Your task to perform on an android device: Search for shimano brake pads on Walmart Image 0: 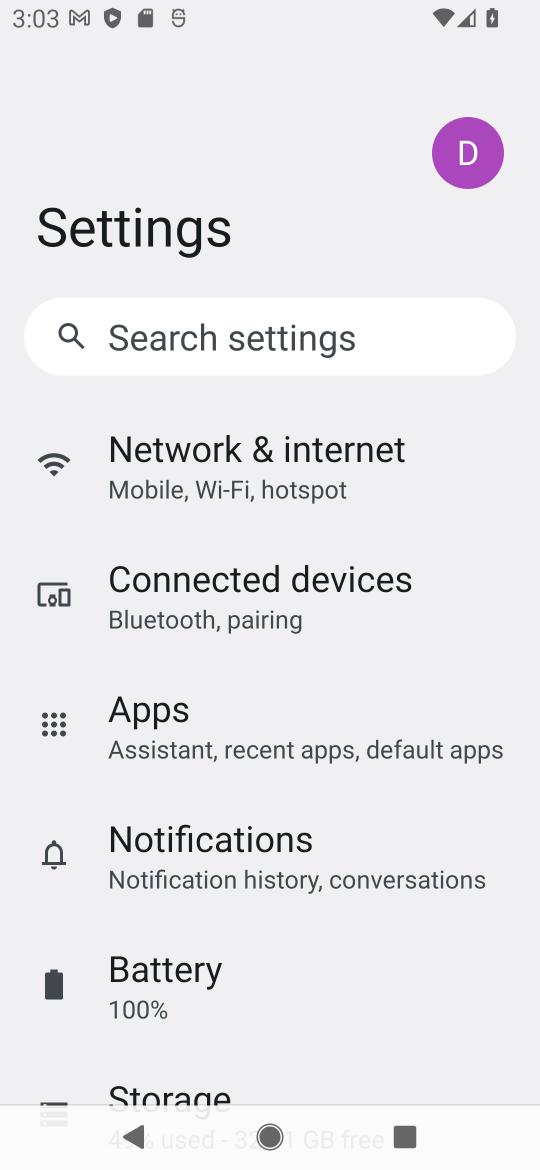
Step 0: press home button
Your task to perform on an android device: Search for shimano brake pads on Walmart Image 1: 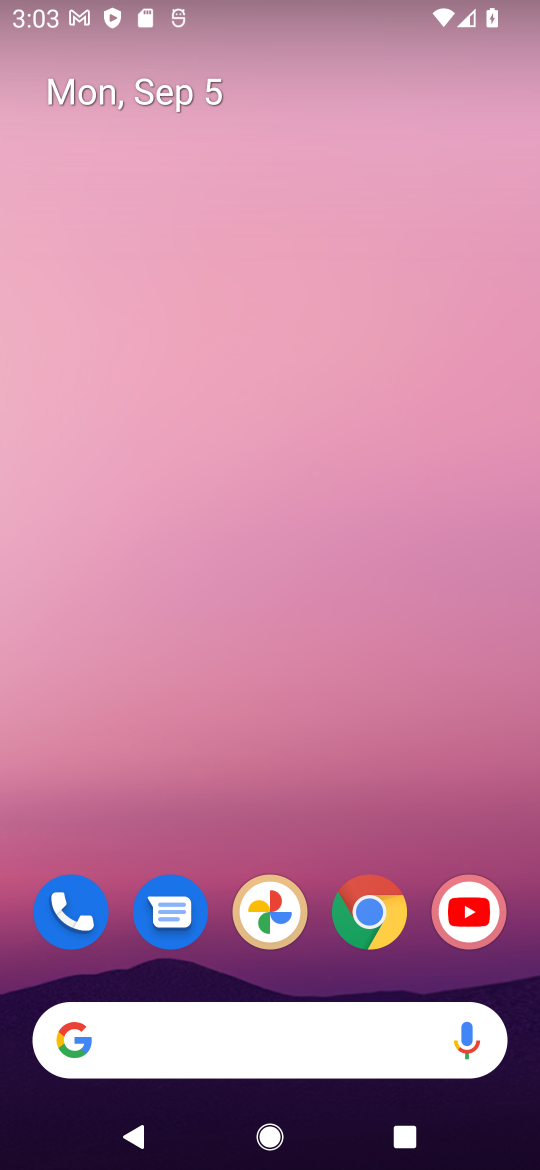
Step 1: click (362, 913)
Your task to perform on an android device: Search for shimano brake pads on Walmart Image 2: 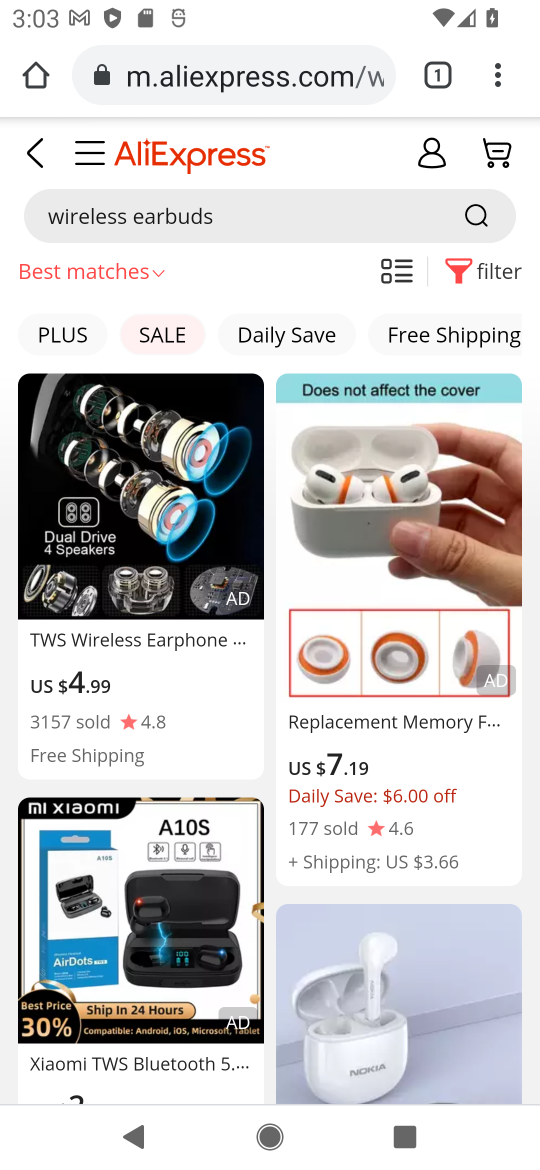
Step 2: click (217, 78)
Your task to perform on an android device: Search for shimano brake pads on Walmart Image 3: 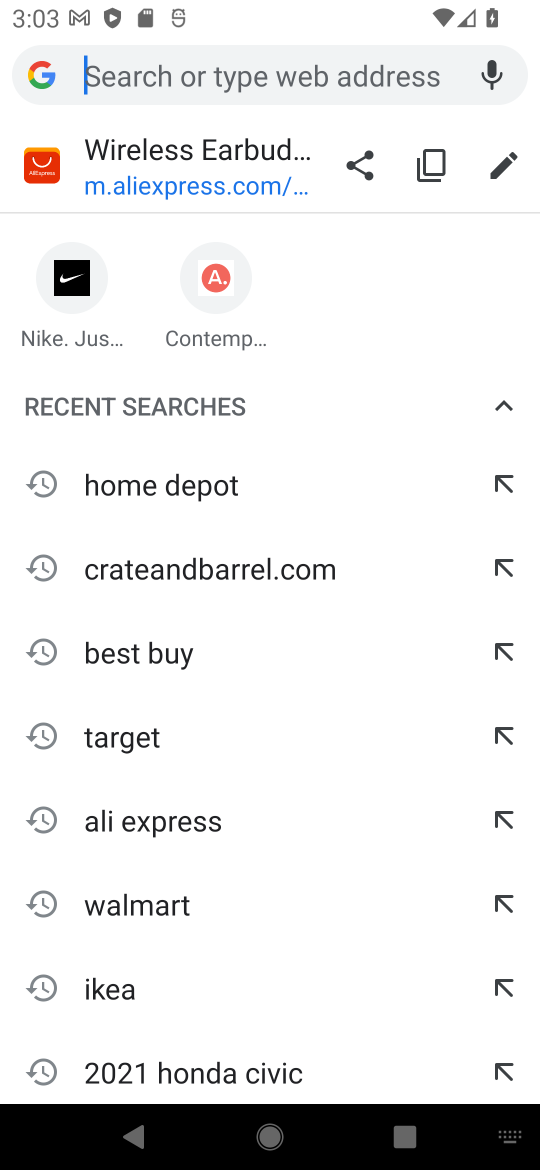
Step 3: type "walmart"
Your task to perform on an android device: Search for shimano brake pads on Walmart Image 4: 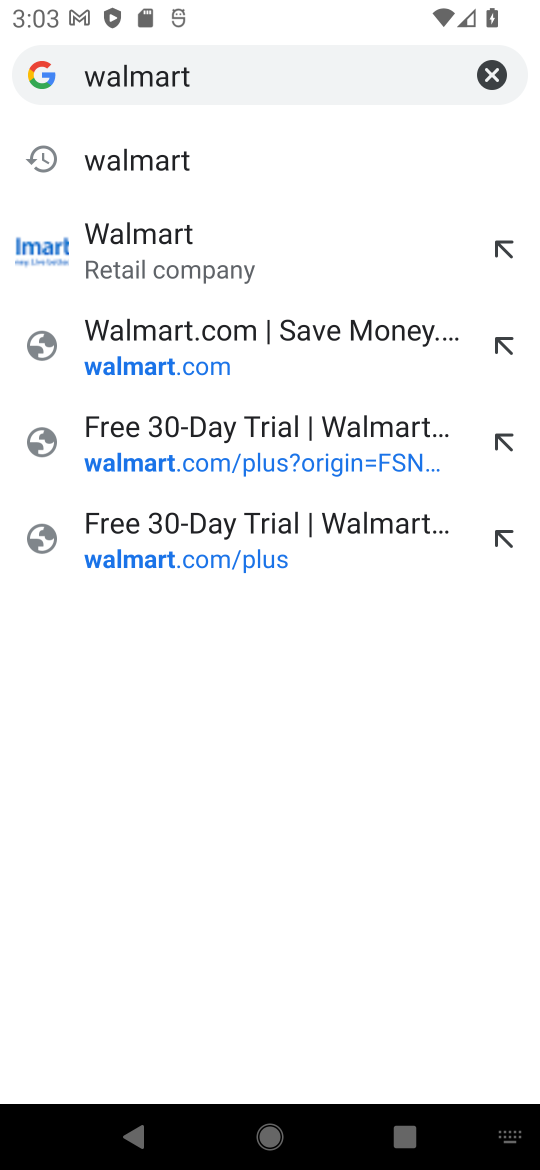
Step 4: press enter
Your task to perform on an android device: Search for shimano brake pads on Walmart Image 5: 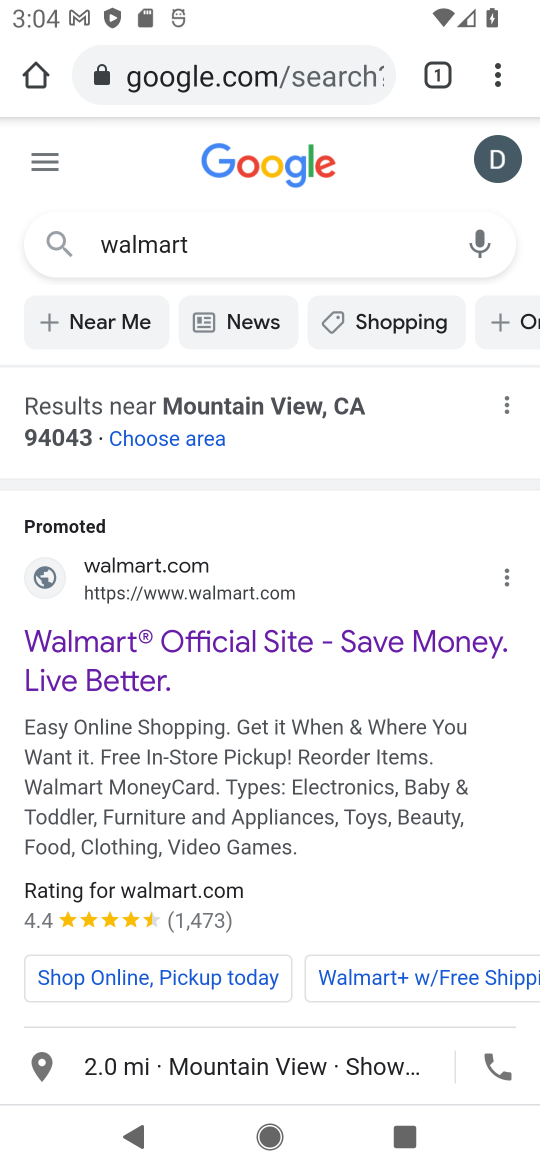
Step 5: click (83, 674)
Your task to perform on an android device: Search for shimano brake pads on Walmart Image 6: 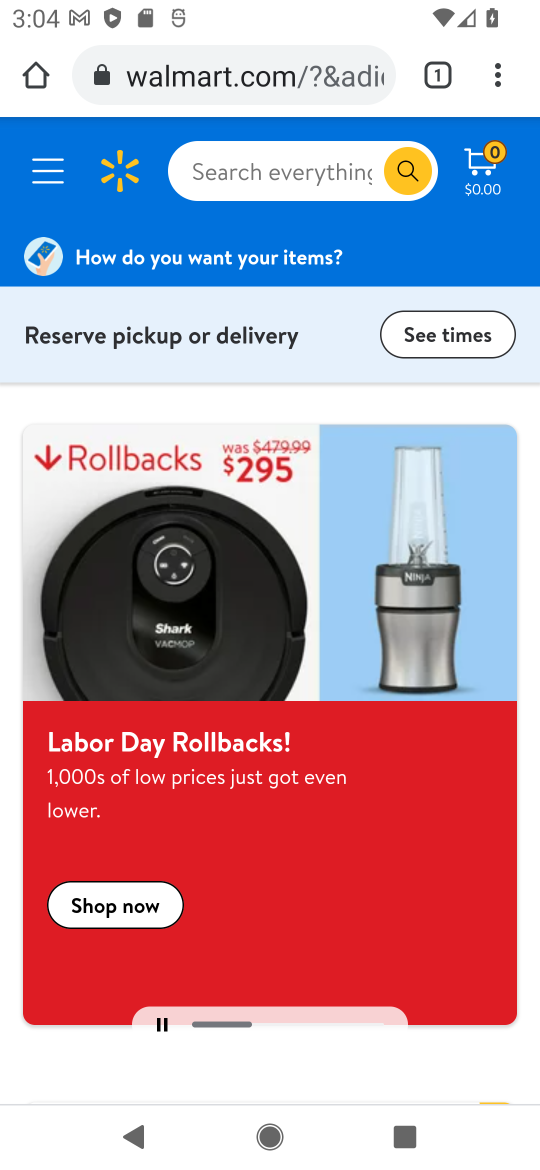
Step 6: click (286, 179)
Your task to perform on an android device: Search for shimano brake pads on Walmart Image 7: 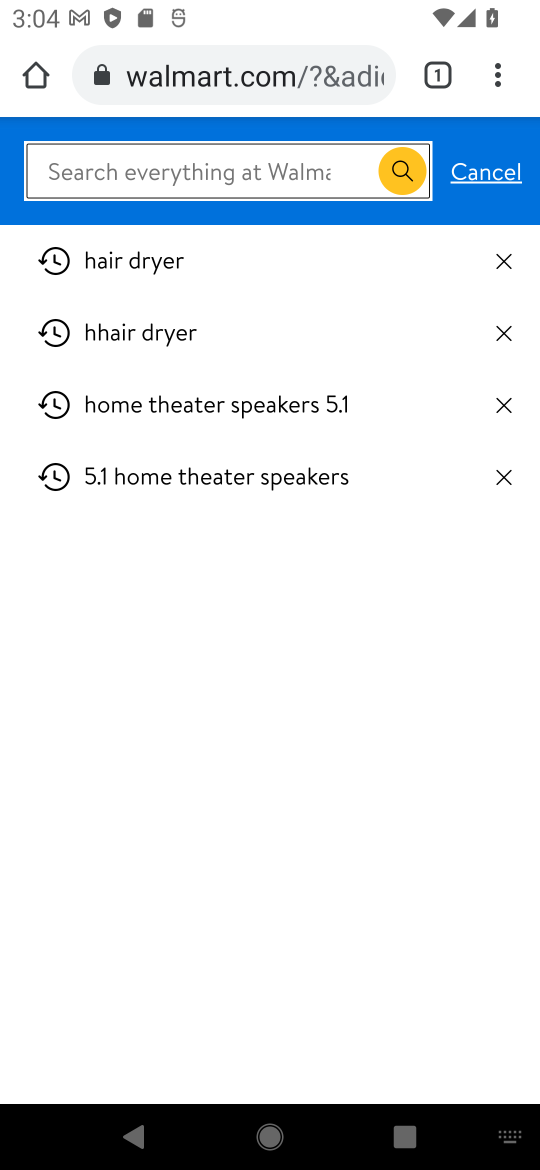
Step 7: type "shimano brake pads"
Your task to perform on an android device: Search for shimano brake pads on Walmart Image 8: 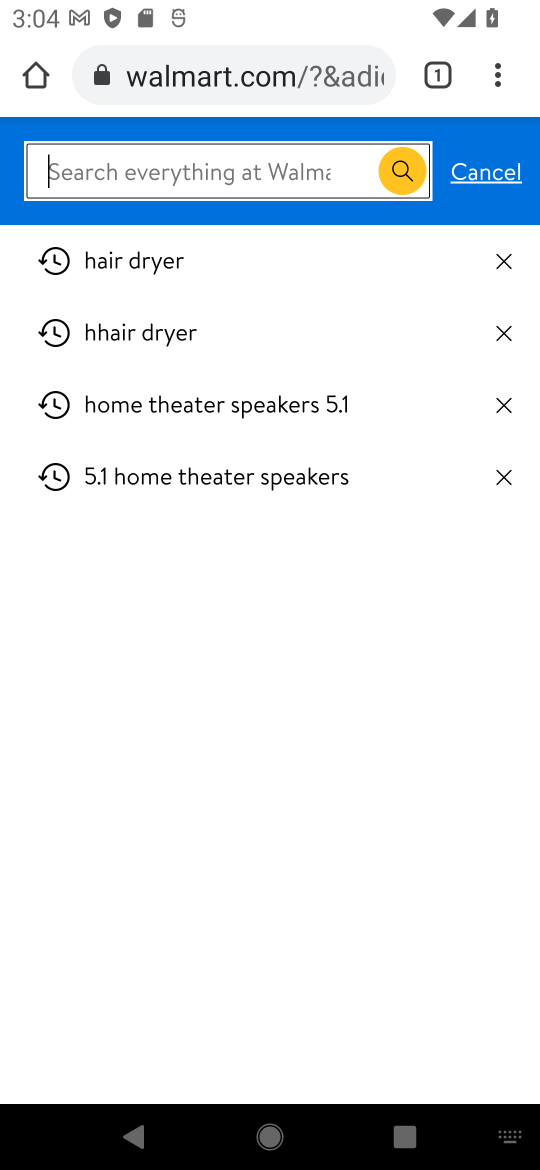
Step 8: type ""
Your task to perform on an android device: Search for shimano brake pads on Walmart Image 9: 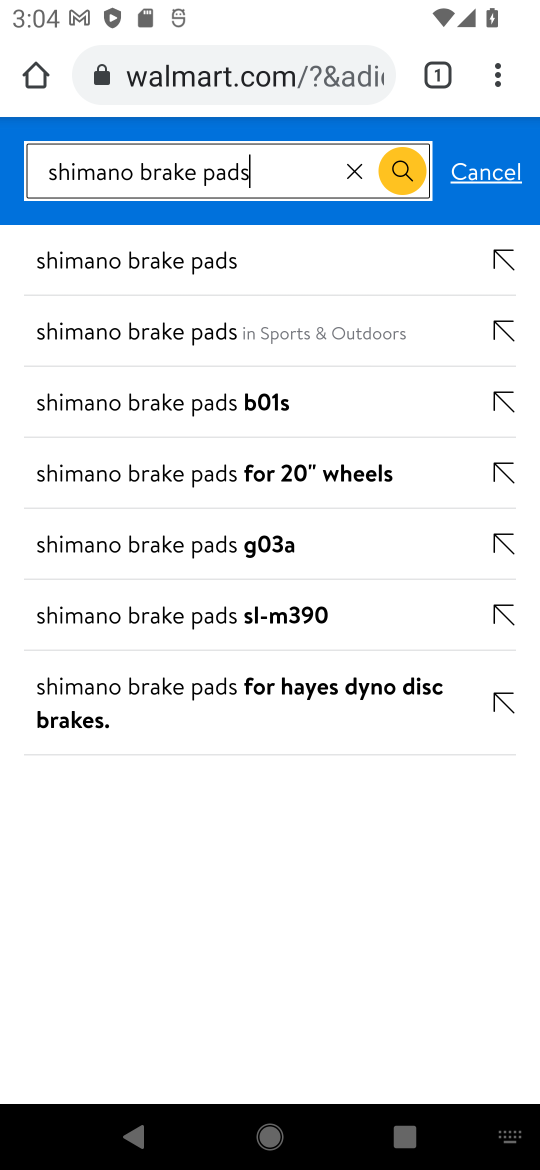
Step 9: press enter
Your task to perform on an android device: Search for shimano brake pads on Walmart Image 10: 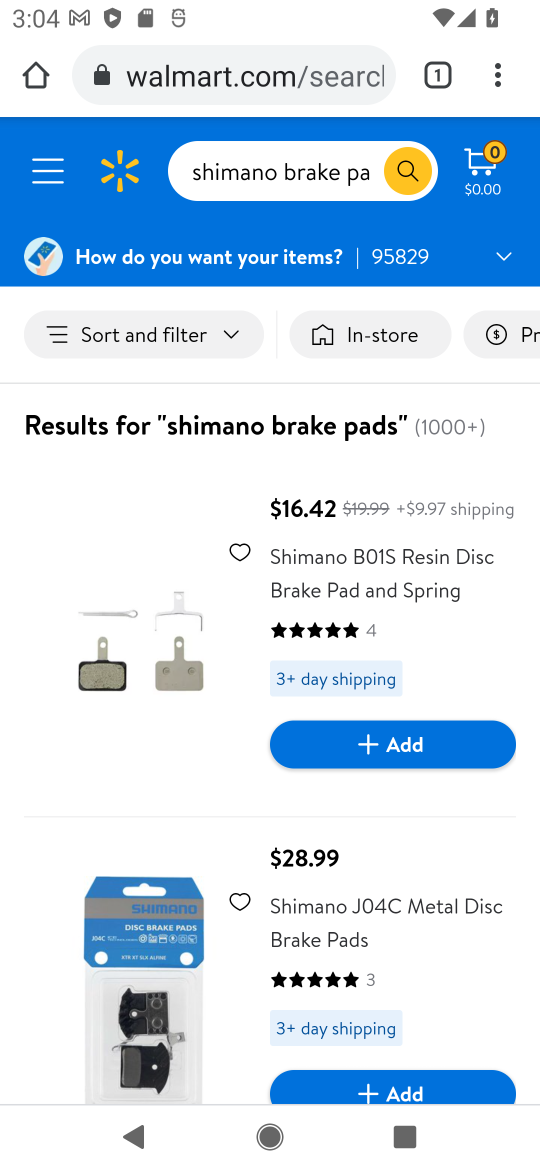
Step 10: task complete